Your task to perform on an android device: Open the map Image 0: 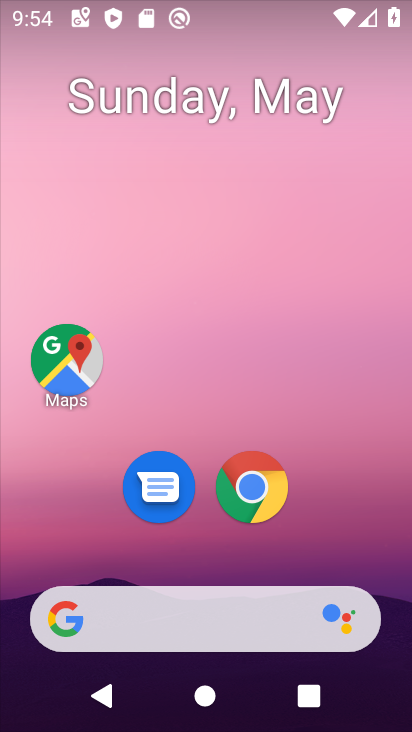
Step 0: drag from (362, 567) to (372, 238)
Your task to perform on an android device: Open the map Image 1: 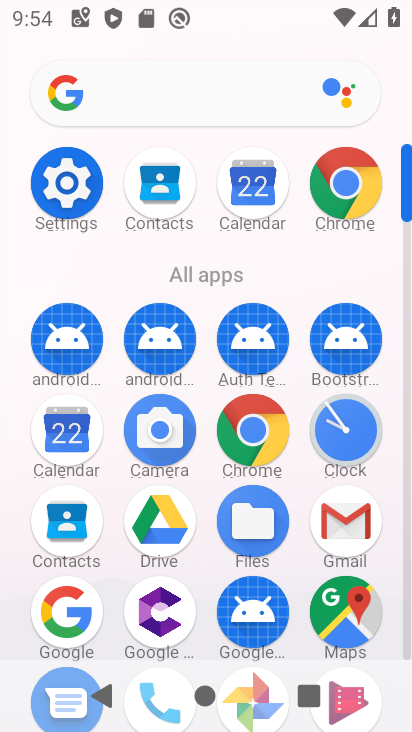
Step 1: click (361, 619)
Your task to perform on an android device: Open the map Image 2: 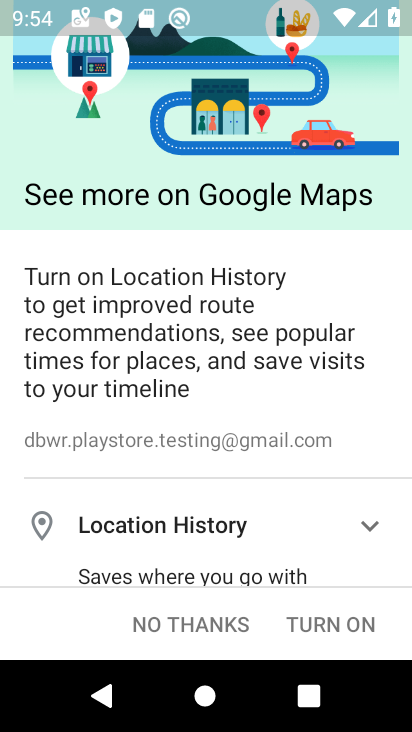
Step 2: click (209, 638)
Your task to perform on an android device: Open the map Image 3: 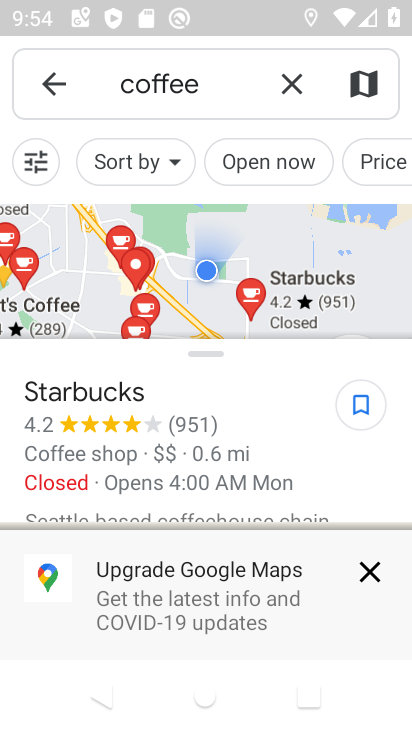
Step 3: task complete